Your task to perform on an android device: Open Google Chrome Image 0: 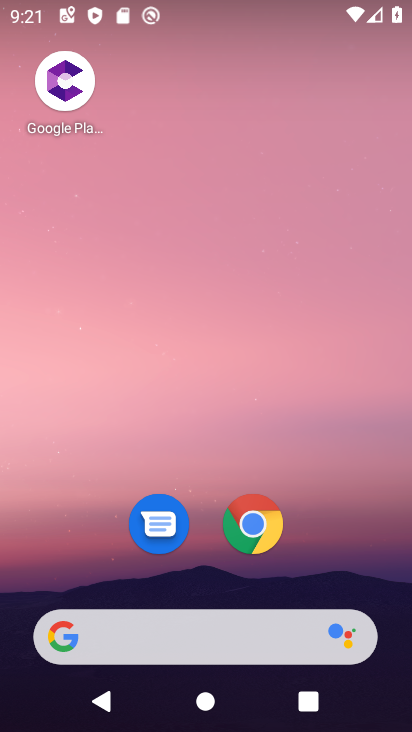
Step 0: press home button
Your task to perform on an android device: Open Google Chrome Image 1: 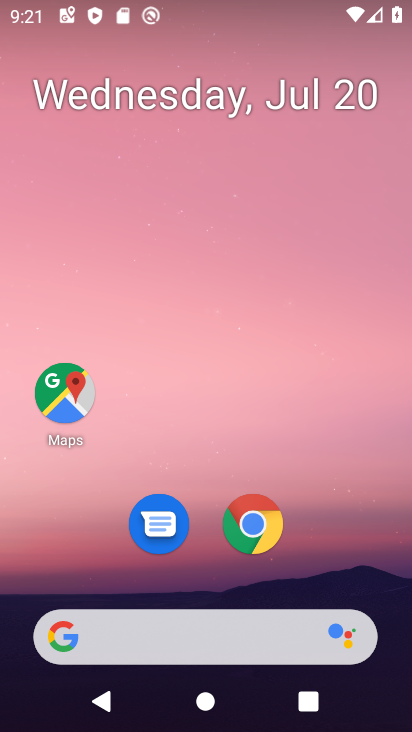
Step 1: click (254, 537)
Your task to perform on an android device: Open Google Chrome Image 2: 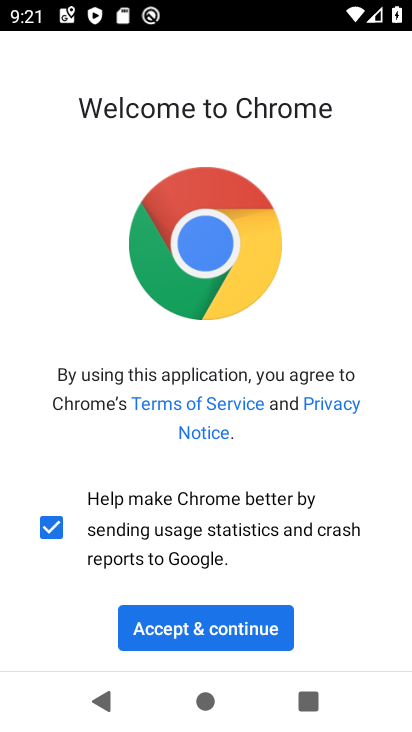
Step 2: click (241, 629)
Your task to perform on an android device: Open Google Chrome Image 3: 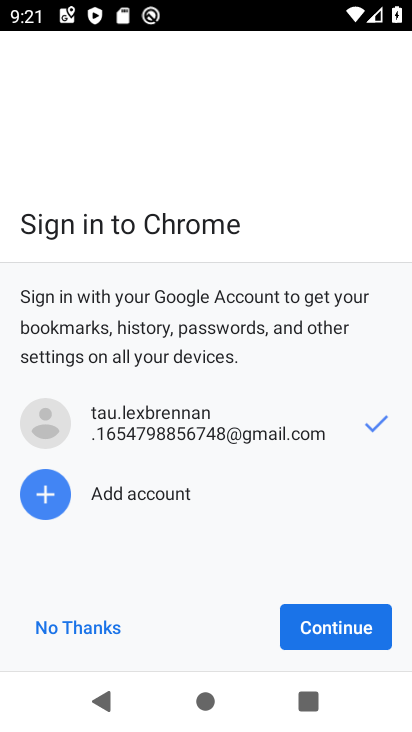
Step 3: click (313, 642)
Your task to perform on an android device: Open Google Chrome Image 4: 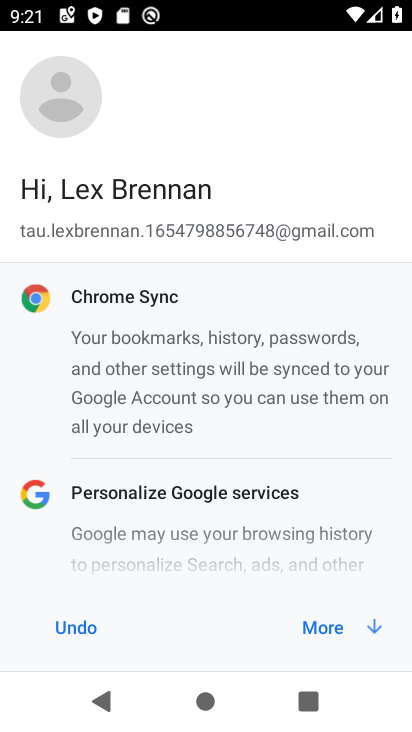
Step 4: click (326, 625)
Your task to perform on an android device: Open Google Chrome Image 5: 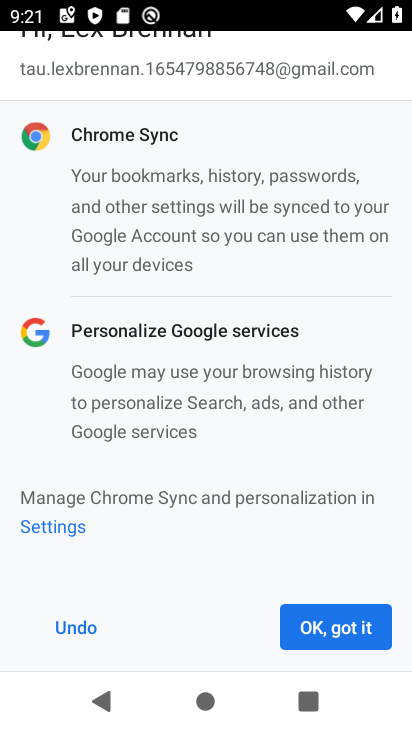
Step 5: click (326, 626)
Your task to perform on an android device: Open Google Chrome Image 6: 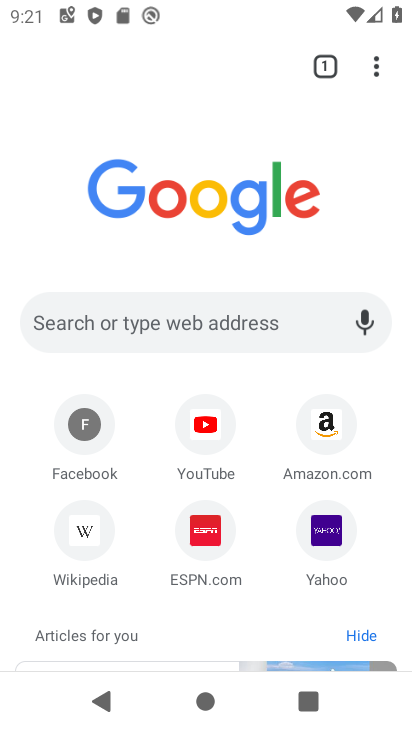
Step 6: task complete